Your task to perform on an android device: Open Youtube and go to the subscriptions tab Image 0: 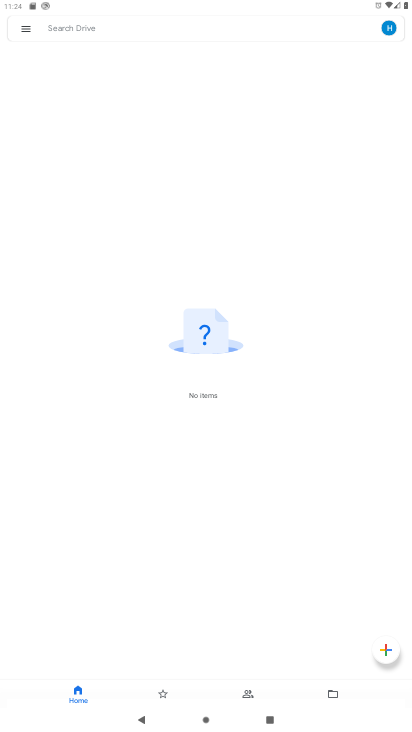
Step 0: press home button
Your task to perform on an android device: Open Youtube and go to the subscriptions tab Image 1: 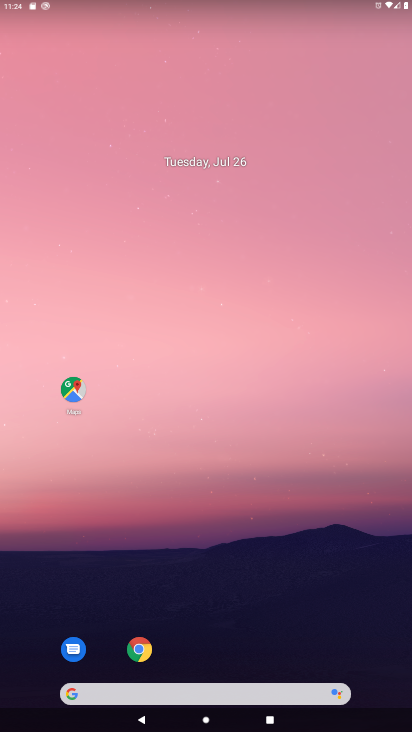
Step 1: drag from (200, 652) to (203, 1)
Your task to perform on an android device: Open Youtube and go to the subscriptions tab Image 2: 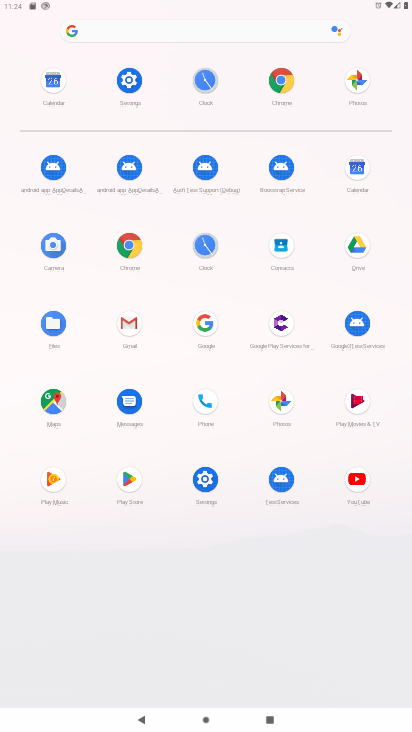
Step 2: click (363, 498)
Your task to perform on an android device: Open Youtube and go to the subscriptions tab Image 3: 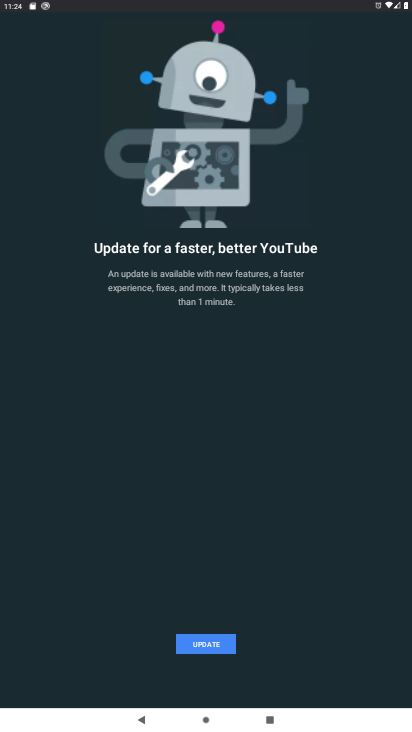
Step 3: click (195, 647)
Your task to perform on an android device: Open Youtube and go to the subscriptions tab Image 4: 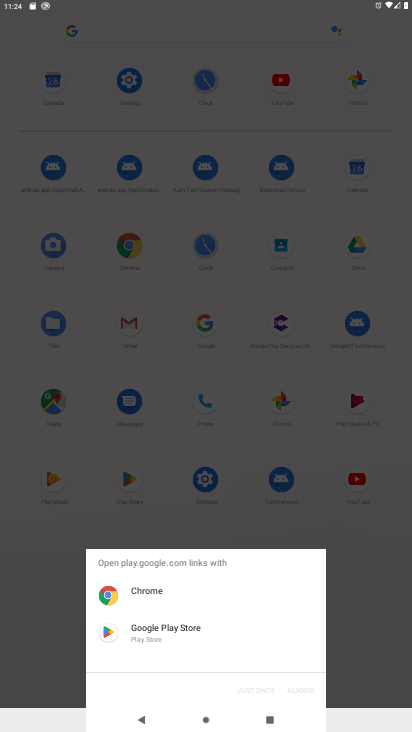
Step 4: click (182, 631)
Your task to perform on an android device: Open Youtube and go to the subscriptions tab Image 5: 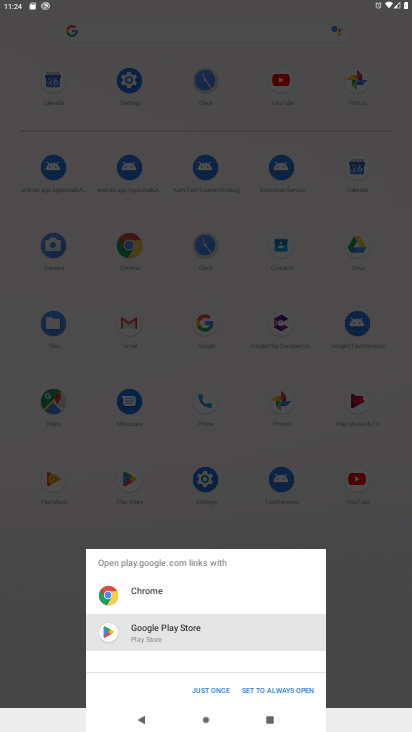
Step 5: click (199, 692)
Your task to perform on an android device: Open Youtube and go to the subscriptions tab Image 6: 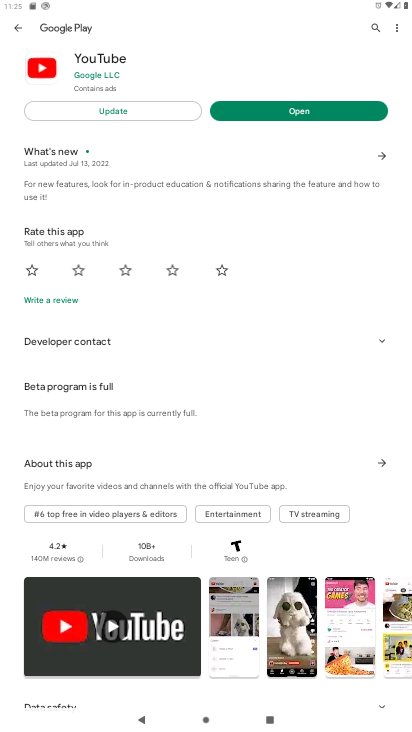
Step 6: click (122, 108)
Your task to perform on an android device: Open Youtube and go to the subscriptions tab Image 7: 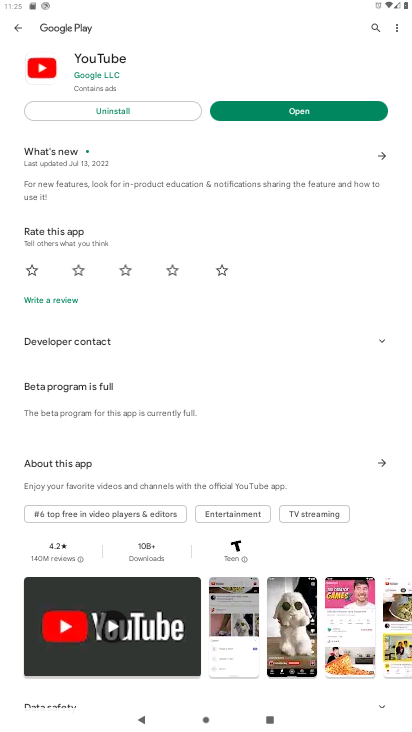
Step 7: click (307, 108)
Your task to perform on an android device: Open Youtube and go to the subscriptions tab Image 8: 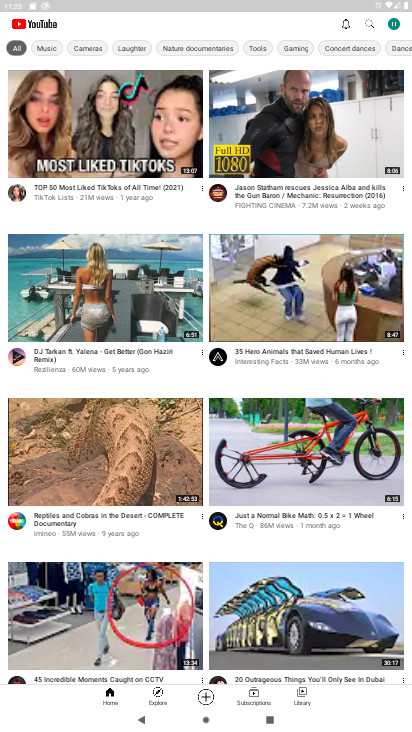
Step 8: click (259, 693)
Your task to perform on an android device: Open Youtube and go to the subscriptions tab Image 9: 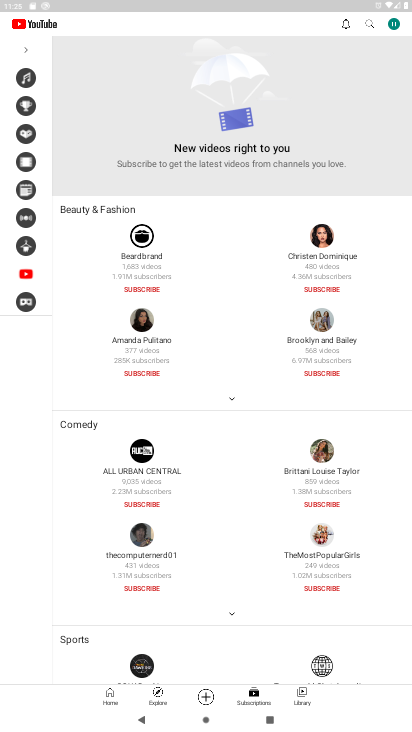
Step 9: task complete